Your task to perform on an android device: change the clock display to digital Image 0: 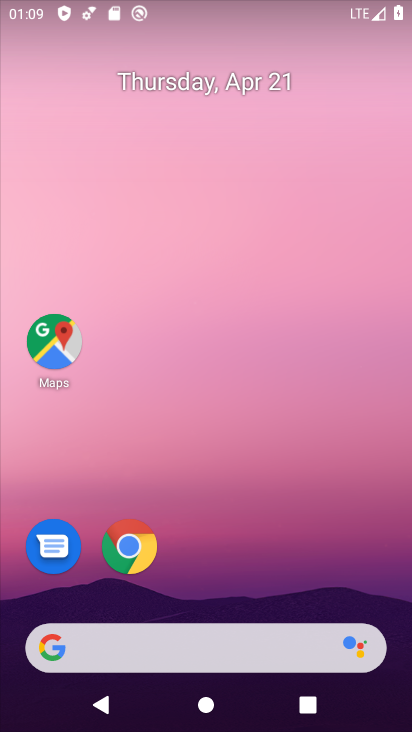
Step 0: drag from (263, 589) to (284, 317)
Your task to perform on an android device: change the clock display to digital Image 1: 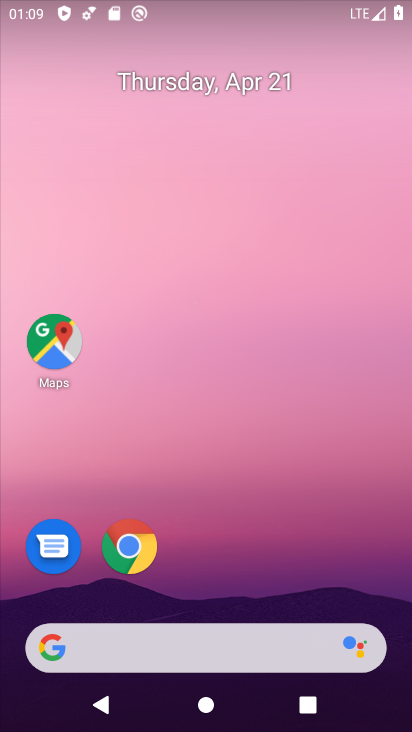
Step 1: drag from (230, 514) to (230, 76)
Your task to perform on an android device: change the clock display to digital Image 2: 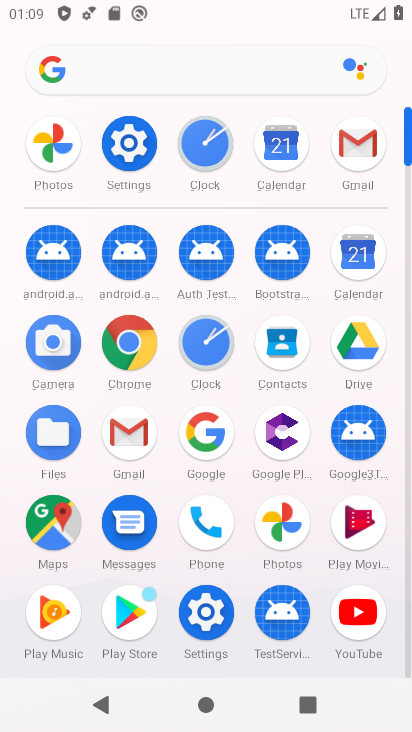
Step 2: click (217, 351)
Your task to perform on an android device: change the clock display to digital Image 3: 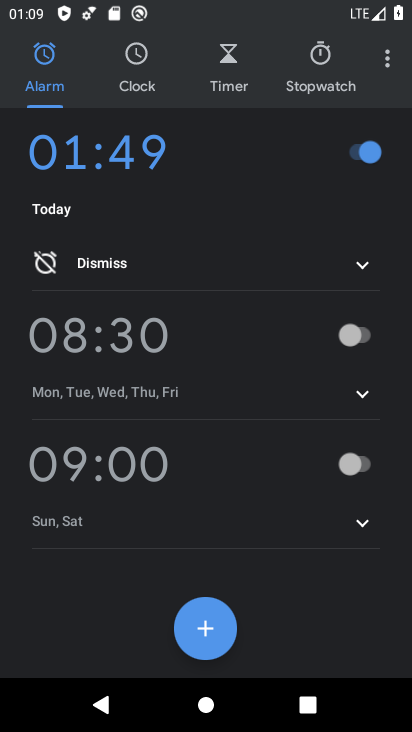
Step 3: click (382, 62)
Your task to perform on an android device: change the clock display to digital Image 4: 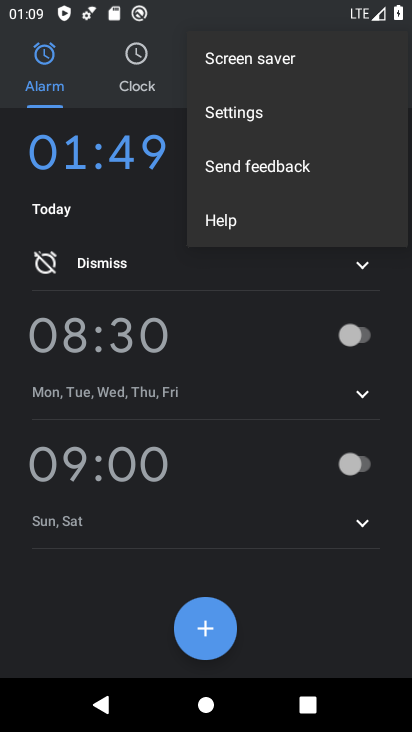
Step 4: click (242, 121)
Your task to perform on an android device: change the clock display to digital Image 5: 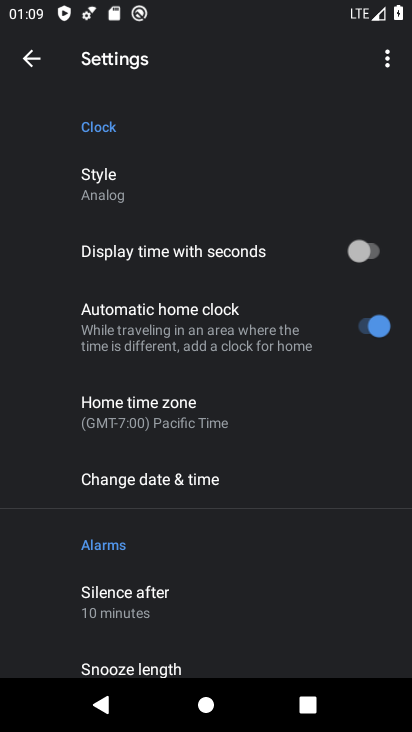
Step 5: click (360, 252)
Your task to perform on an android device: change the clock display to digital Image 6: 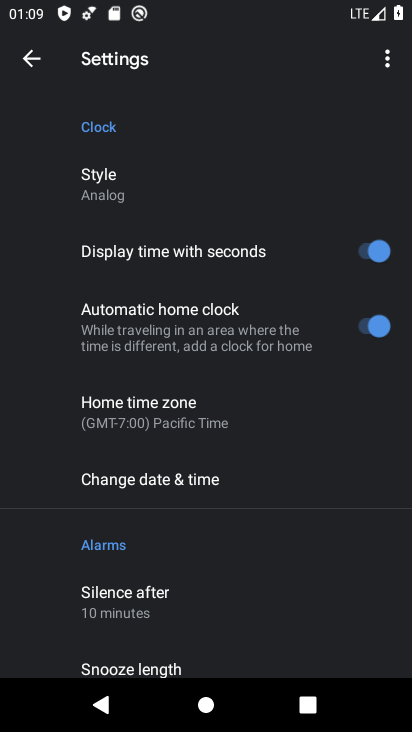
Step 6: task complete